Your task to perform on an android device: check the backup settings in the google photos Image 0: 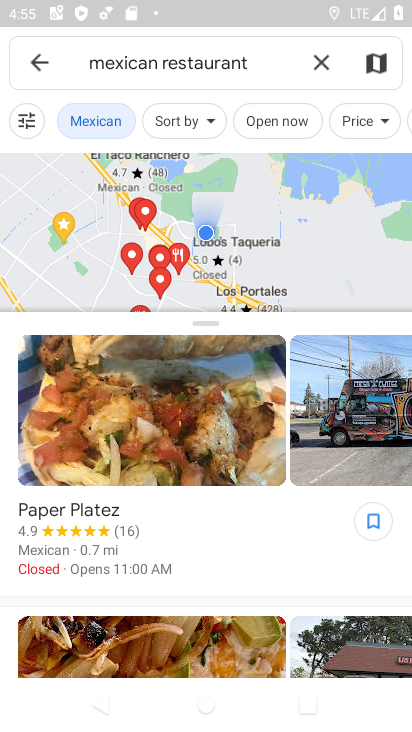
Step 0: press home button
Your task to perform on an android device: check the backup settings in the google photos Image 1: 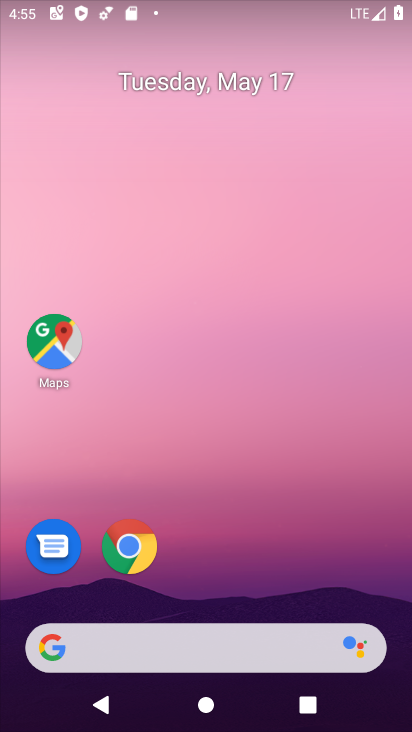
Step 1: drag from (225, 545) to (327, 12)
Your task to perform on an android device: check the backup settings in the google photos Image 2: 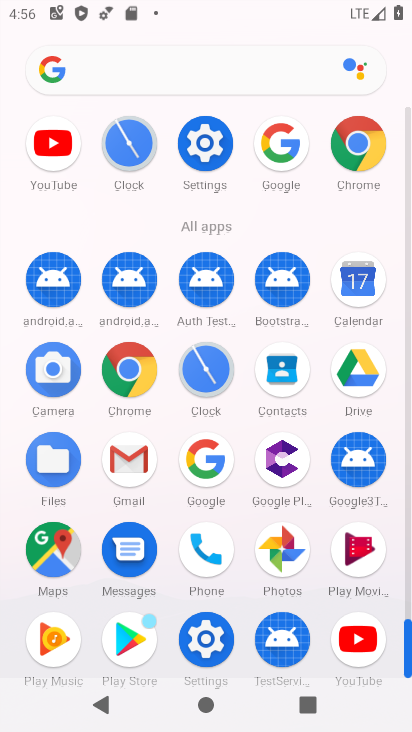
Step 2: click (276, 558)
Your task to perform on an android device: check the backup settings in the google photos Image 3: 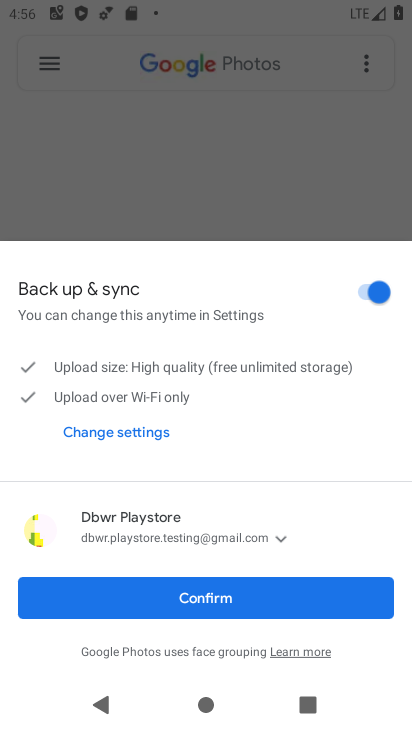
Step 3: click (218, 583)
Your task to perform on an android device: check the backup settings in the google photos Image 4: 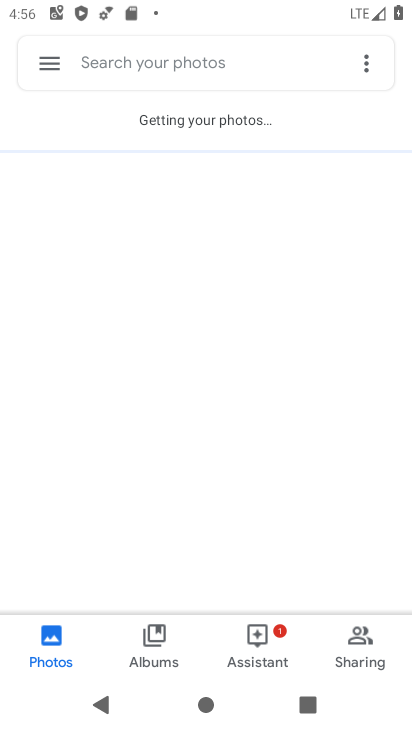
Step 4: click (47, 61)
Your task to perform on an android device: check the backup settings in the google photos Image 5: 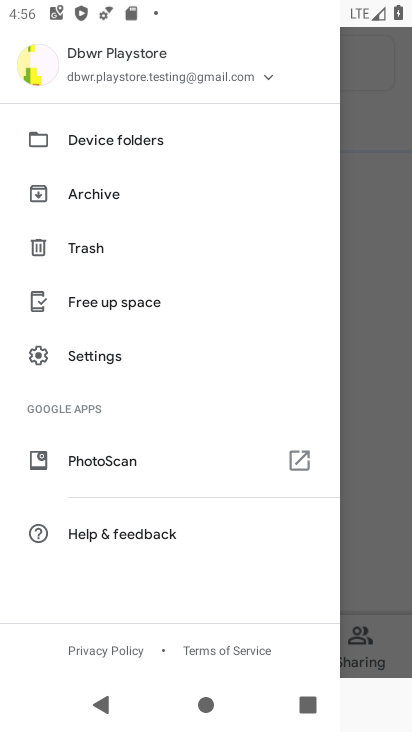
Step 5: click (111, 355)
Your task to perform on an android device: check the backup settings in the google photos Image 6: 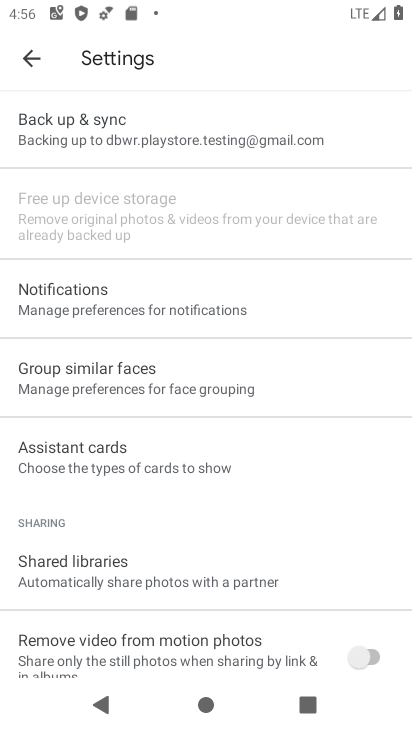
Step 6: click (130, 128)
Your task to perform on an android device: check the backup settings in the google photos Image 7: 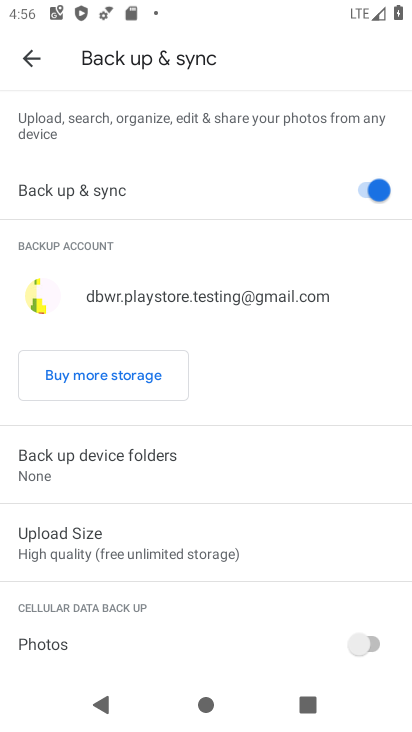
Step 7: task complete